Your task to perform on an android device: stop showing notifications on the lock screen Image 0: 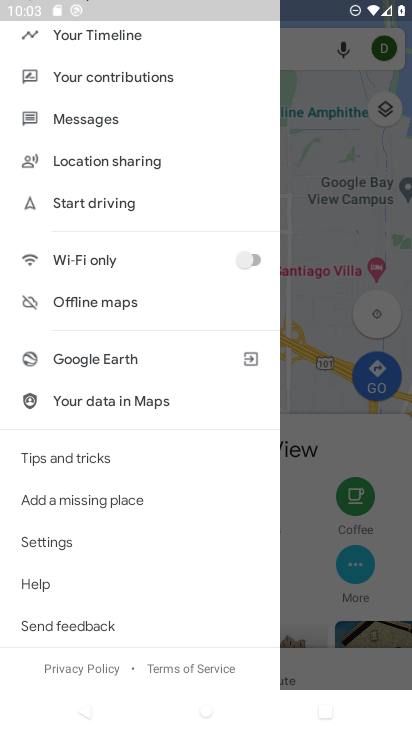
Step 0: press home button
Your task to perform on an android device: stop showing notifications on the lock screen Image 1: 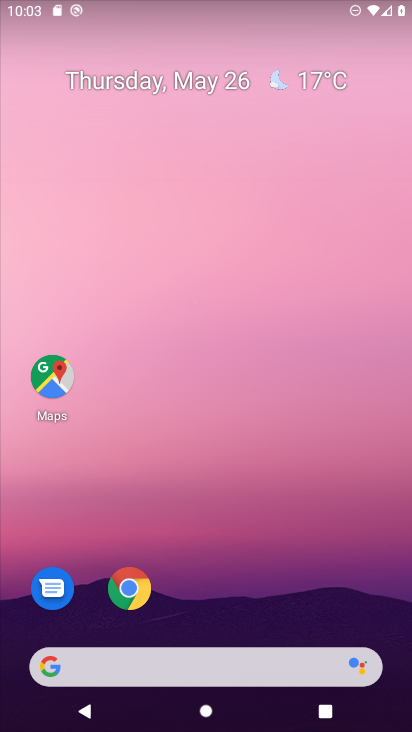
Step 1: drag from (354, 609) to (297, 118)
Your task to perform on an android device: stop showing notifications on the lock screen Image 2: 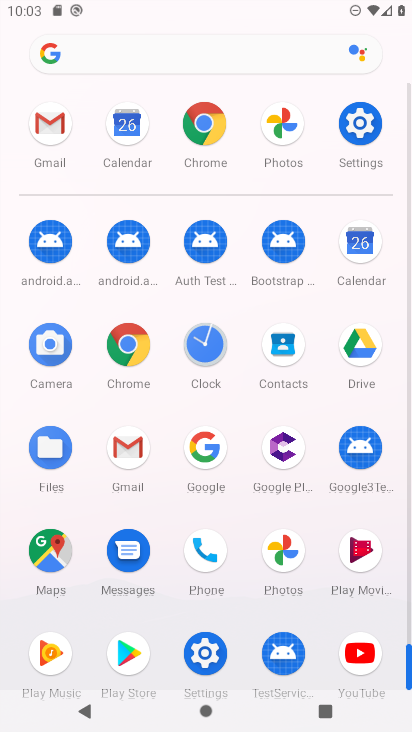
Step 2: click (204, 652)
Your task to perform on an android device: stop showing notifications on the lock screen Image 3: 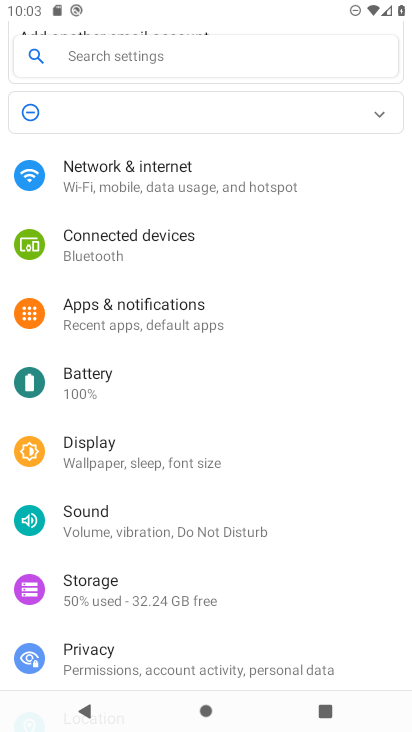
Step 3: drag from (330, 590) to (321, 528)
Your task to perform on an android device: stop showing notifications on the lock screen Image 4: 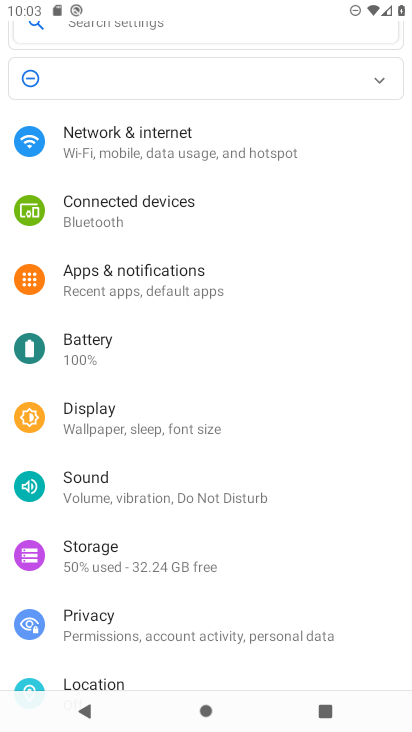
Step 4: click (135, 278)
Your task to perform on an android device: stop showing notifications on the lock screen Image 5: 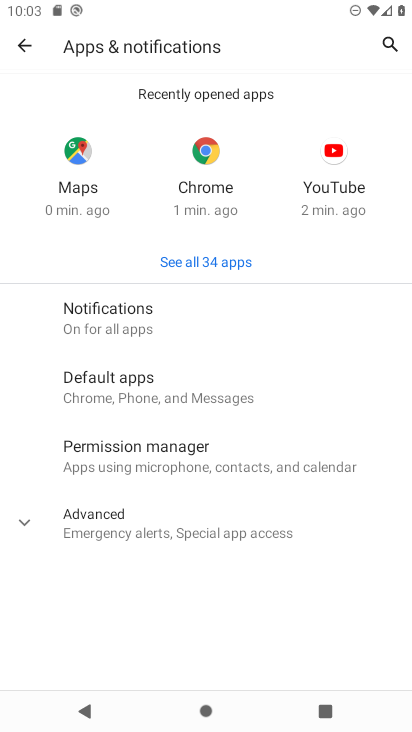
Step 5: click (102, 313)
Your task to perform on an android device: stop showing notifications on the lock screen Image 6: 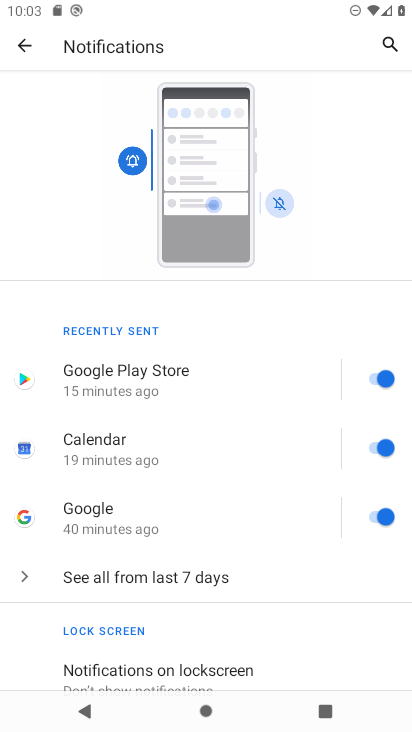
Step 6: click (207, 661)
Your task to perform on an android device: stop showing notifications on the lock screen Image 7: 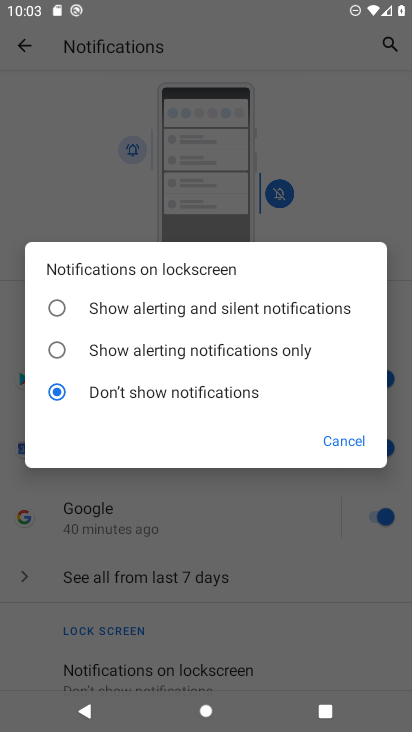
Step 7: task complete